Your task to perform on an android device: empty trash in google photos Image 0: 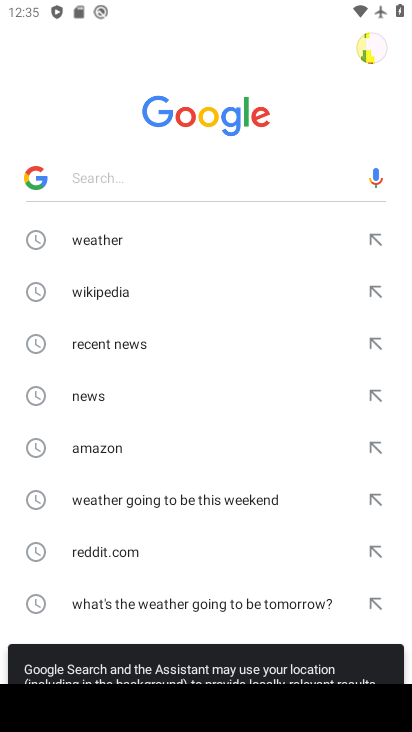
Step 0: press home button
Your task to perform on an android device: empty trash in google photos Image 1: 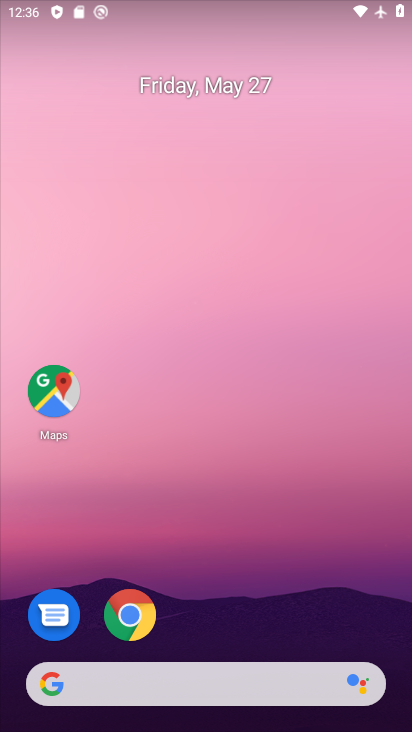
Step 1: drag from (216, 630) to (289, 86)
Your task to perform on an android device: empty trash in google photos Image 2: 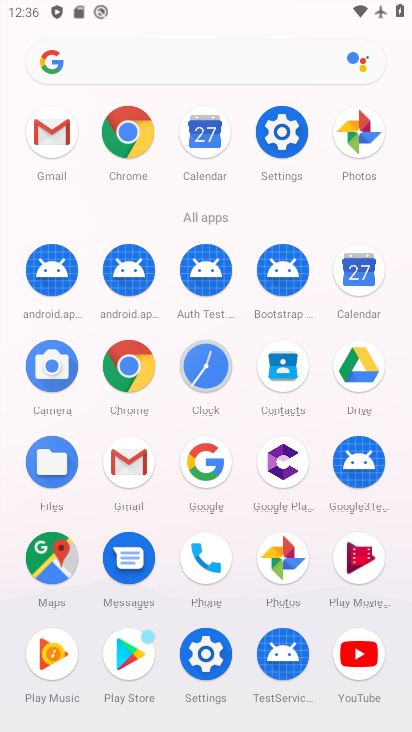
Step 2: click (278, 563)
Your task to perform on an android device: empty trash in google photos Image 3: 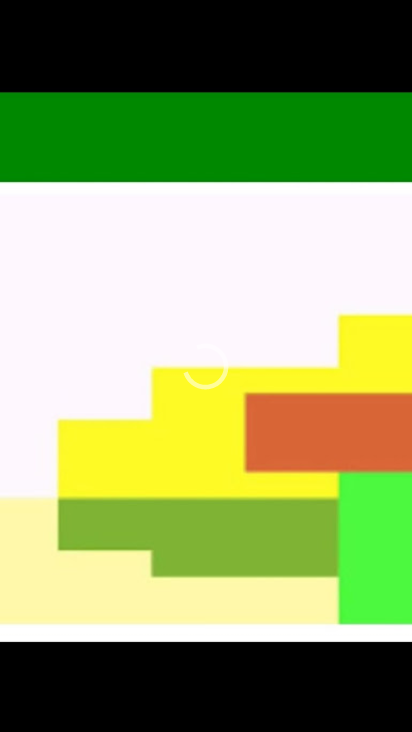
Step 3: click (77, 53)
Your task to perform on an android device: empty trash in google photos Image 4: 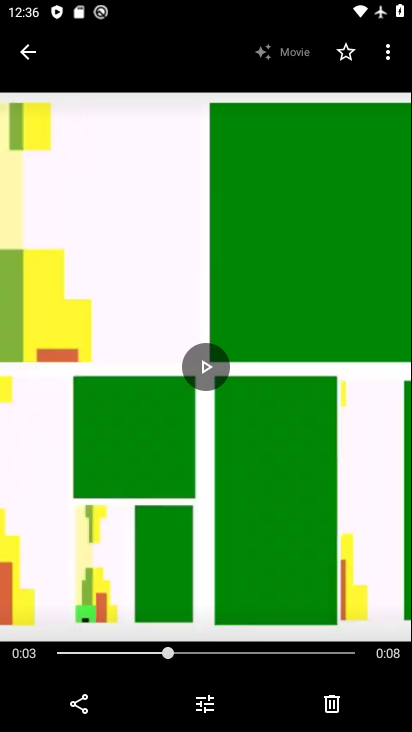
Step 4: click (27, 55)
Your task to perform on an android device: empty trash in google photos Image 5: 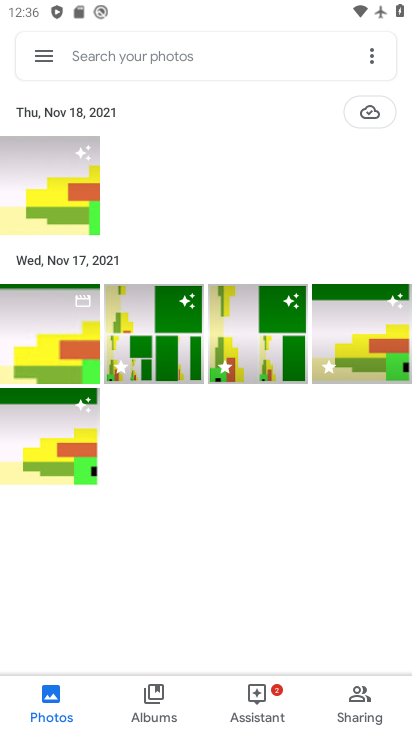
Step 5: click (41, 62)
Your task to perform on an android device: empty trash in google photos Image 6: 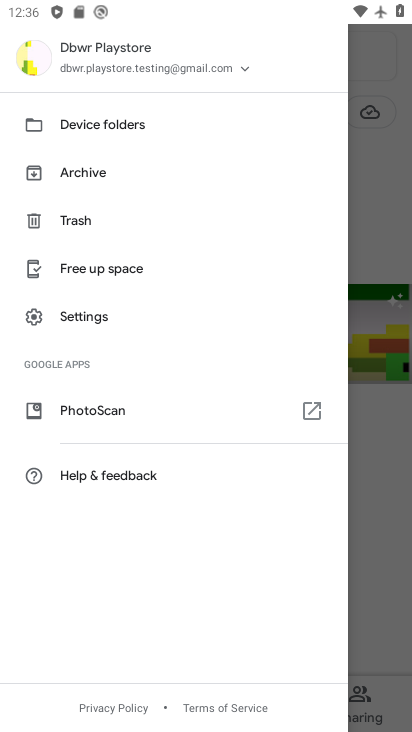
Step 6: click (83, 222)
Your task to perform on an android device: empty trash in google photos Image 7: 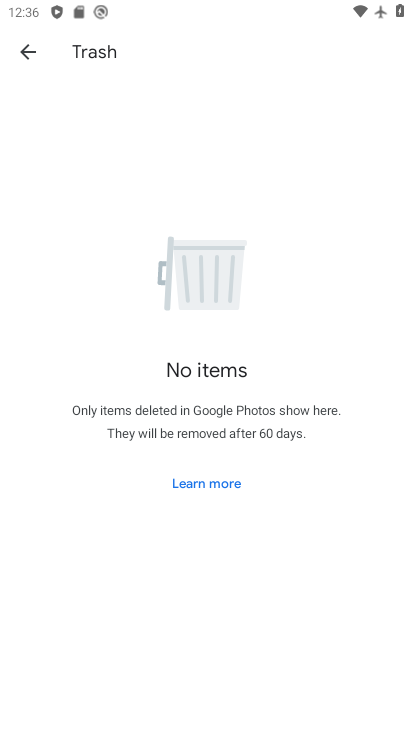
Step 7: task complete